Your task to perform on an android device: turn off sleep mode Image 0: 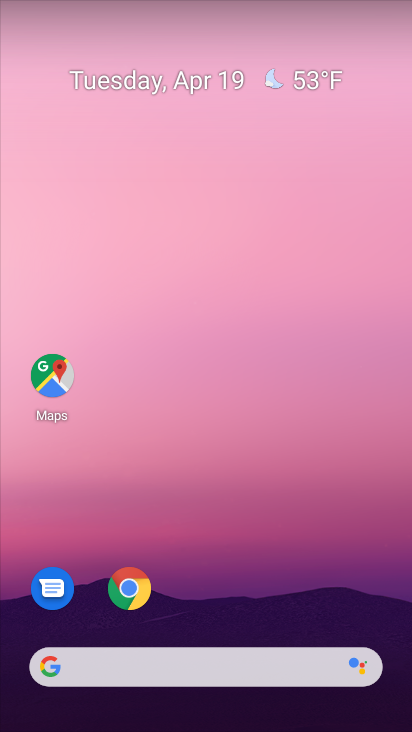
Step 0: drag from (209, 511) to (255, 43)
Your task to perform on an android device: turn off sleep mode Image 1: 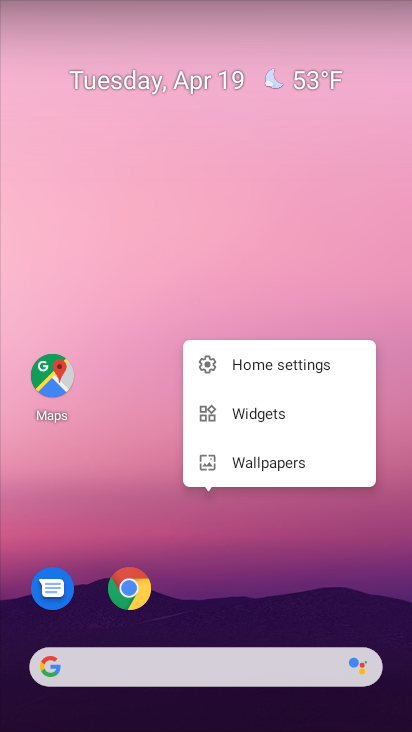
Step 1: drag from (201, 554) to (235, 211)
Your task to perform on an android device: turn off sleep mode Image 2: 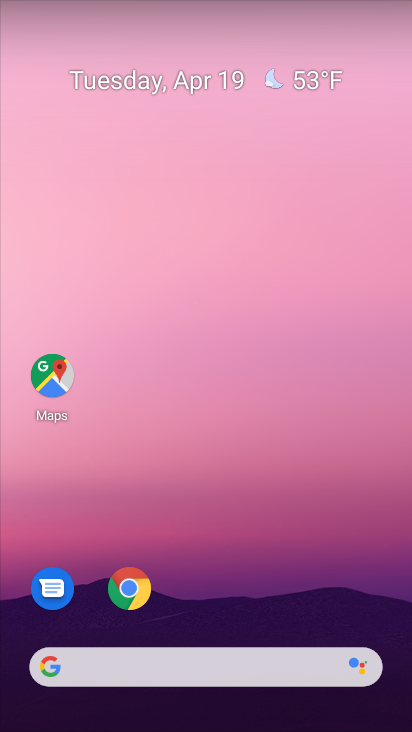
Step 2: drag from (209, 584) to (208, 111)
Your task to perform on an android device: turn off sleep mode Image 3: 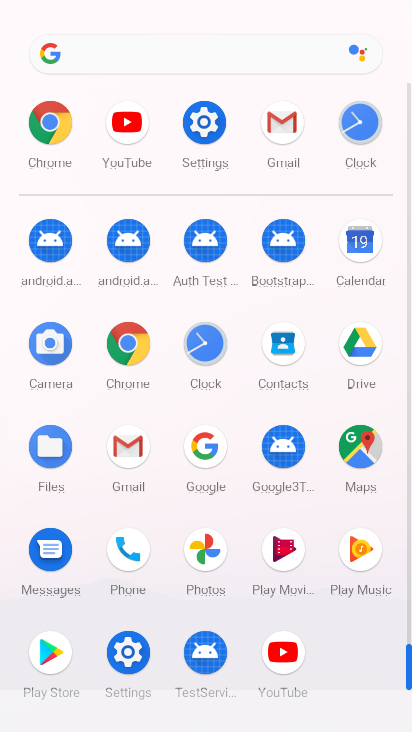
Step 3: click (207, 134)
Your task to perform on an android device: turn off sleep mode Image 4: 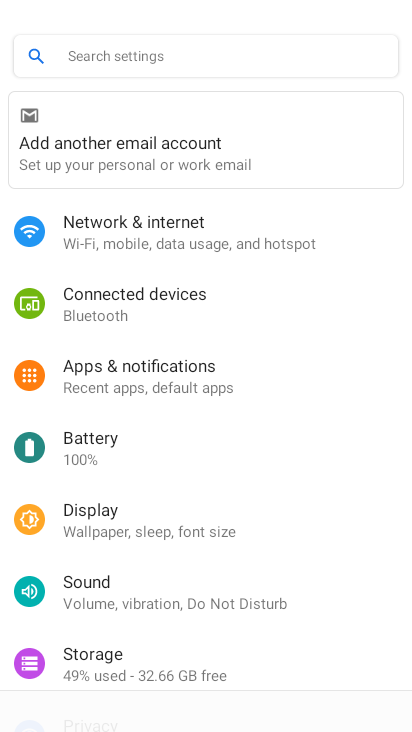
Step 4: click (177, 534)
Your task to perform on an android device: turn off sleep mode Image 5: 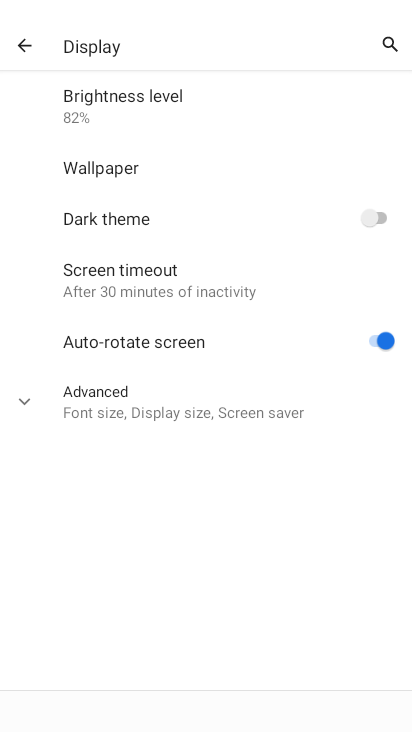
Step 5: click (163, 399)
Your task to perform on an android device: turn off sleep mode Image 6: 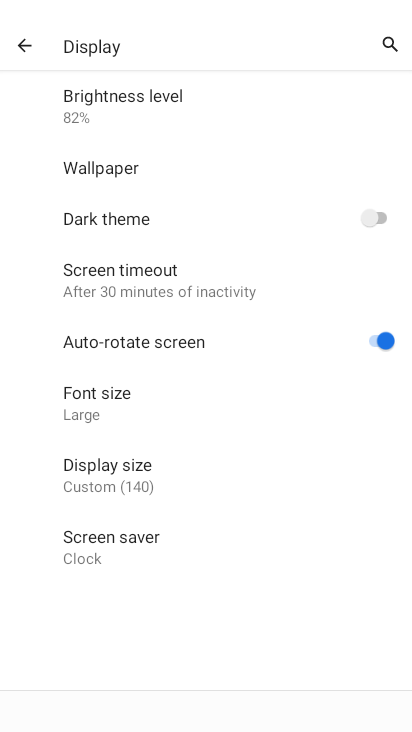
Step 6: task complete